Your task to perform on an android device: open app "Spotify: Music and Podcasts" (install if not already installed) Image 0: 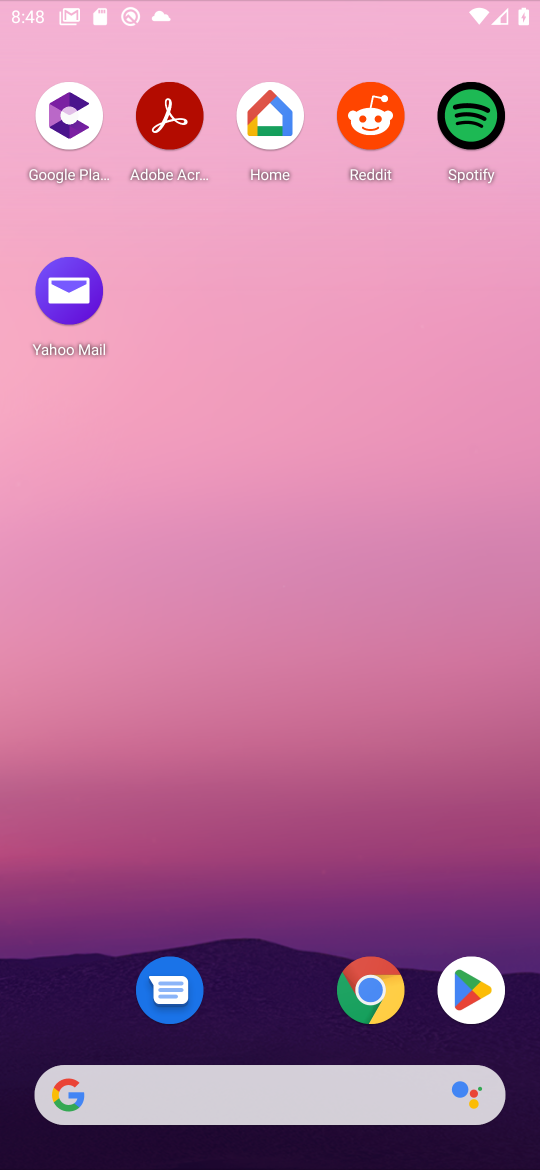
Step 0: press home button
Your task to perform on an android device: open app "Spotify: Music and Podcasts" (install if not already installed) Image 1: 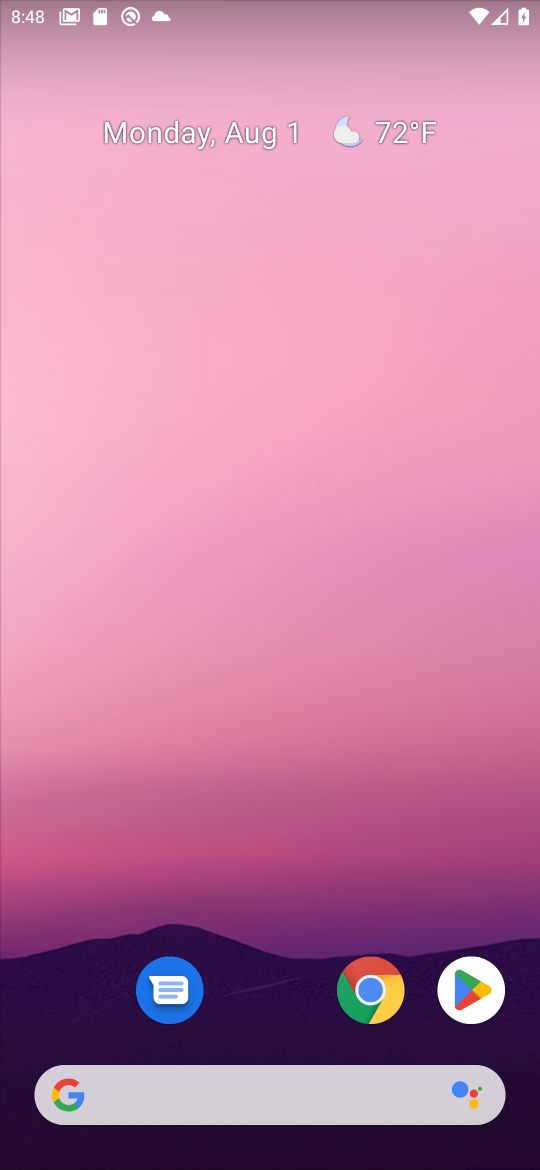
Step 1: click (489, 988)
Your task to perform on an android device: open app "Spotify: Music and Podcasts" (install if not already installed) Image 2: 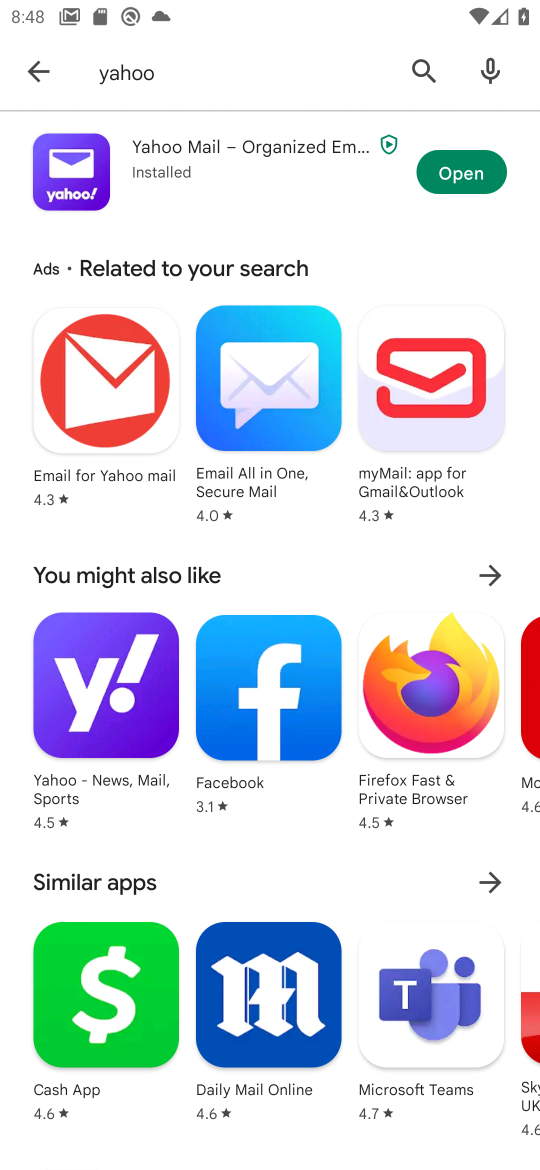
Step 2: click (411, 55)
Your task to perform on an android device: open app "Spotify: Music and Podcasts" (install if not already installed) Image 3: 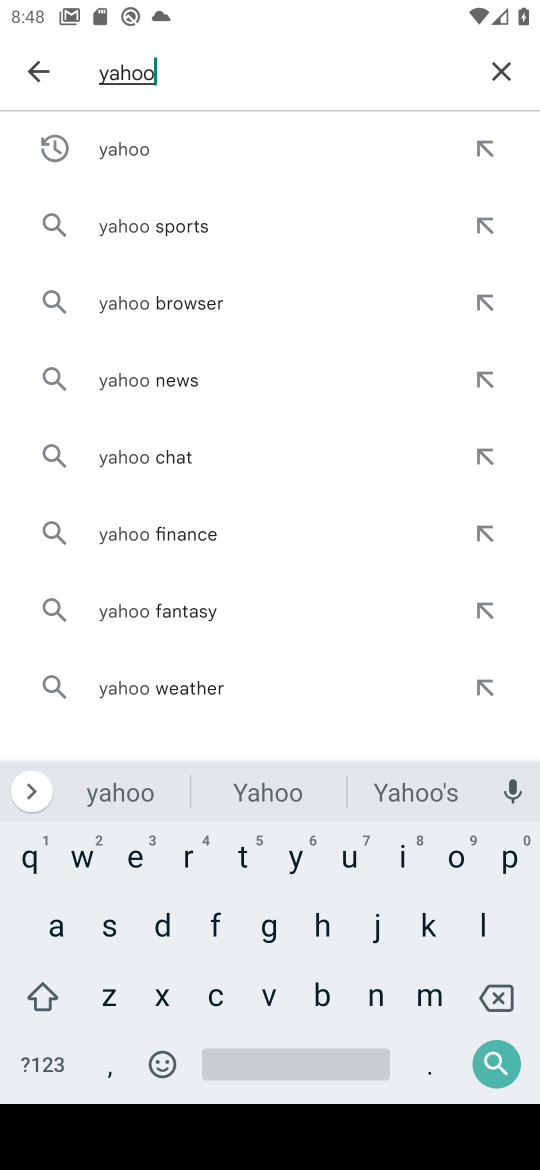
Step 3: click (503, 75)
Your task to perform on an android device: open app "Spotify: Music and Podcasts" (install if not already installed) Image 4: 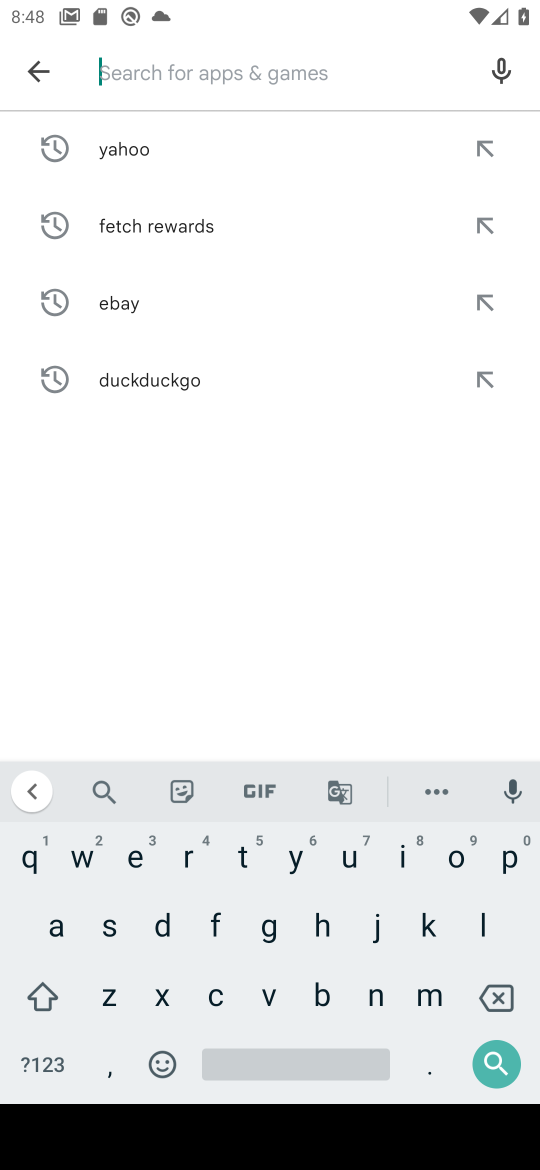
Step 4: click (120, 927)
Your task to perform on an android device: open app "Spotify: Music and Podcasts" (install if not already installed) Image 5: 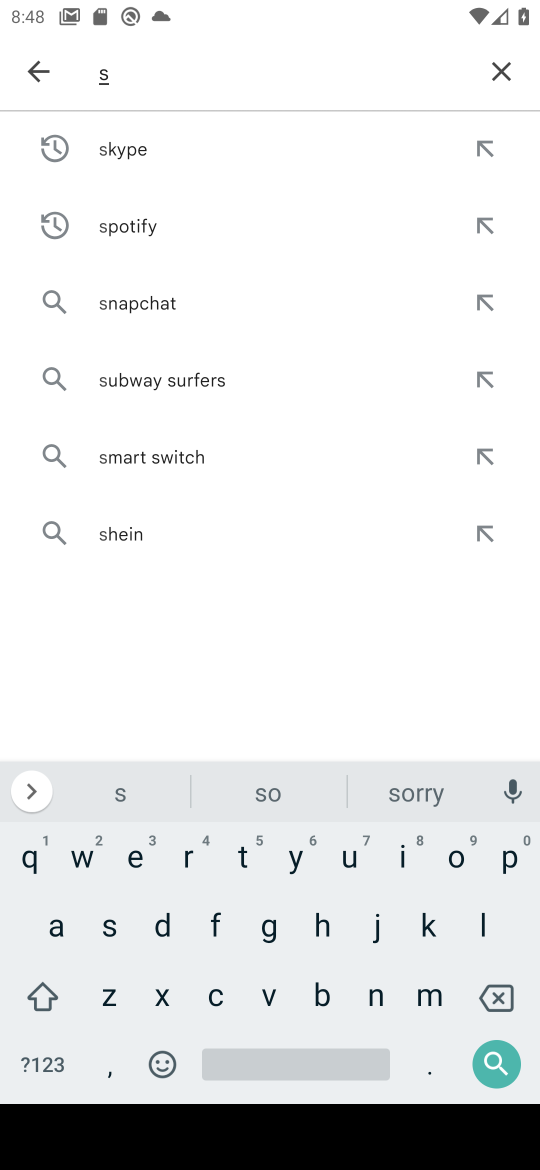
Step 5: click (512, 858)
Your task to perform on an android device: open app "Spotify: Music and Podcasts" (install if not already installed) Image 6: 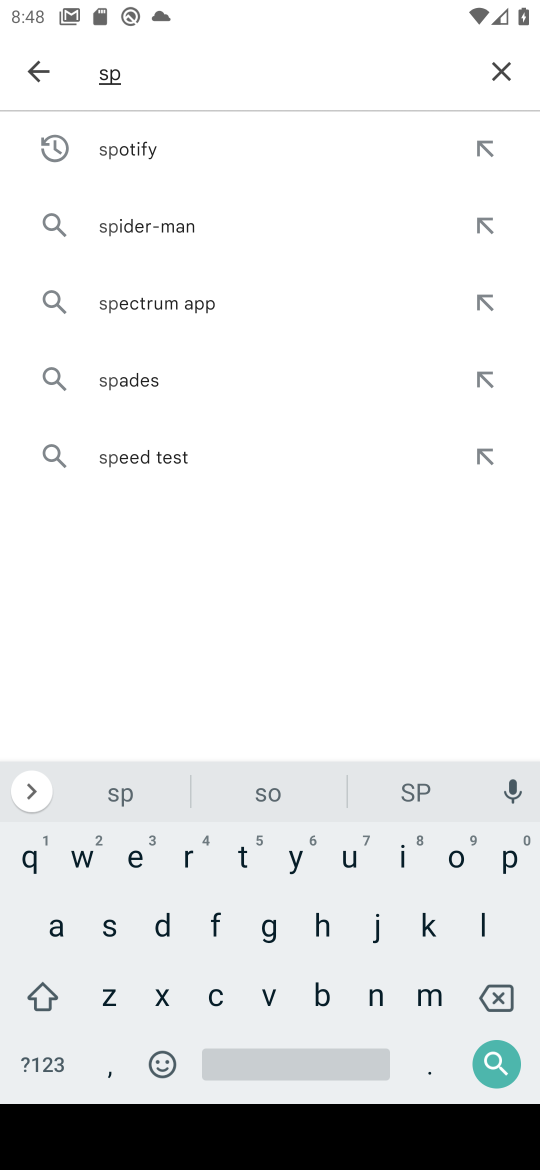
Step 6: click (148, 157)
Your task to perform on an android device: open app "Spotify: Music and Podcasts" (install if not already installed) Image 7: 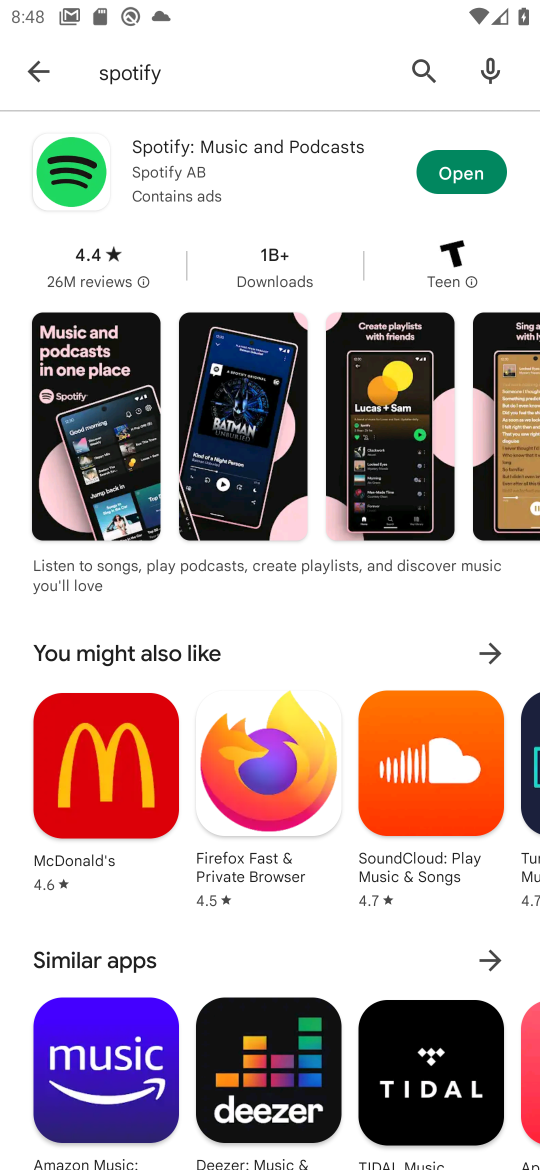
Step 7: click (459, 170)
Your task to perform on an android device: open app "Spotify: Music and Podcasts" (install if not already installed) Image 8: 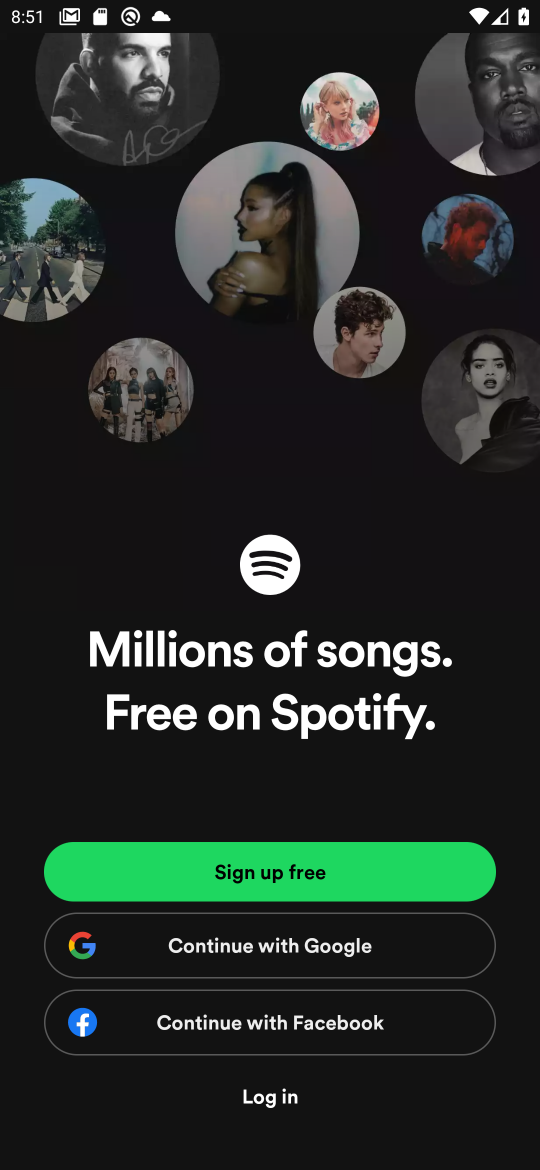
Step 8: task complete